Your task to perform on an android device: When is my next appointment? Image 0: 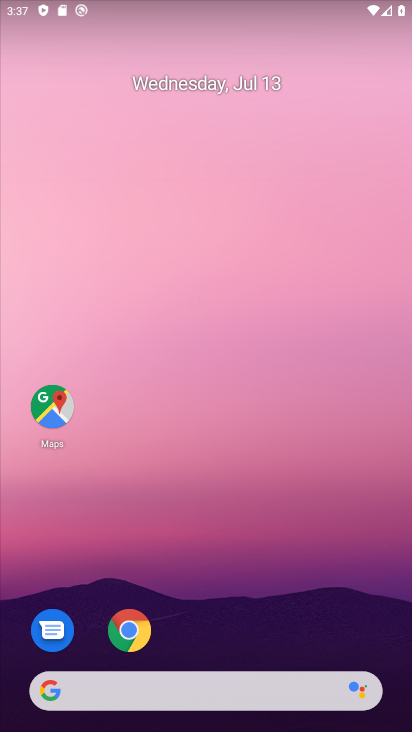
Step 0: drag from (372, 606) to (331, 12)
Your task to perform on an android device: When is my next appointment? Image 1: 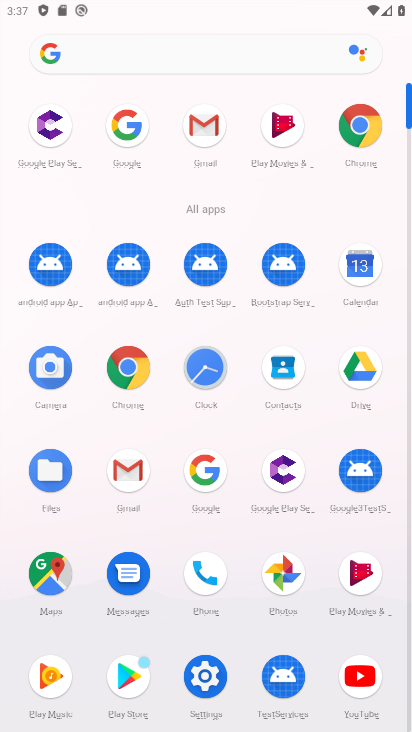
Step 1: click (362, 278)
Your task to perform on an android device: When is my next appointment? Image 2: 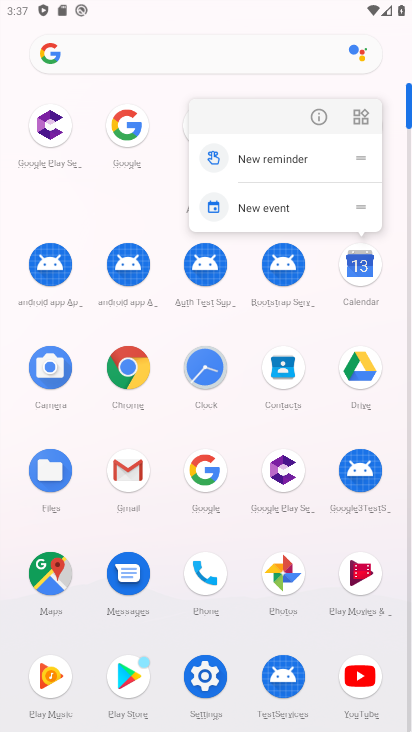
Step 2: click (362, 275)
Your task to perform on an android device: When is my next appointment? Image 3: 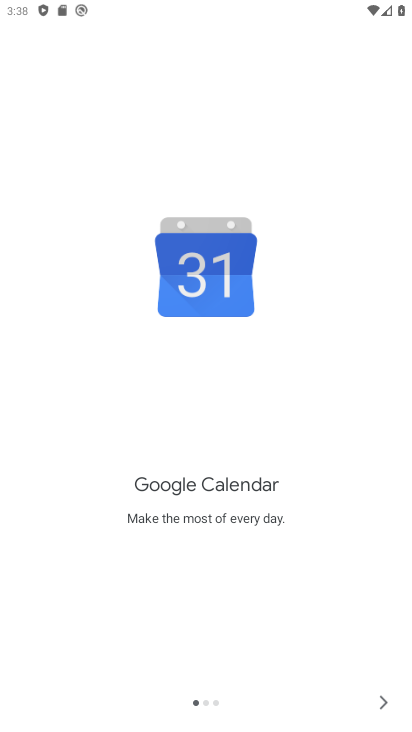
Step 3: click (385, 705)
Your task to perform on an android device: When is my next appointment? Image 4: 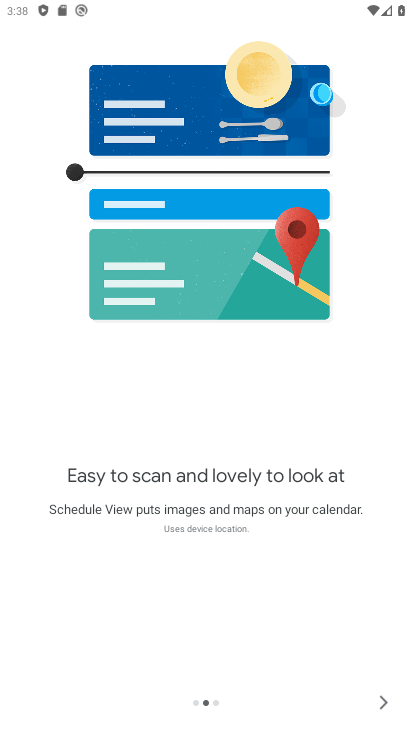
Step 4: click (384, 704)
Your task to perform on an android device: When is my next appointment? Image 5: 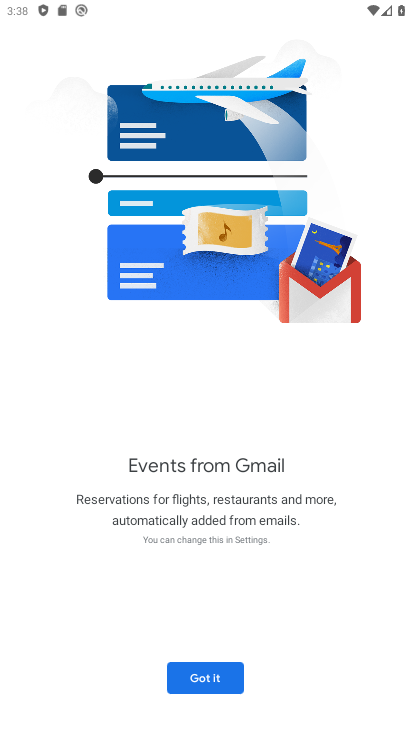
Step 5: click (209, 662)
Your task to perform on an android device: When is my next appointment? Image 6: 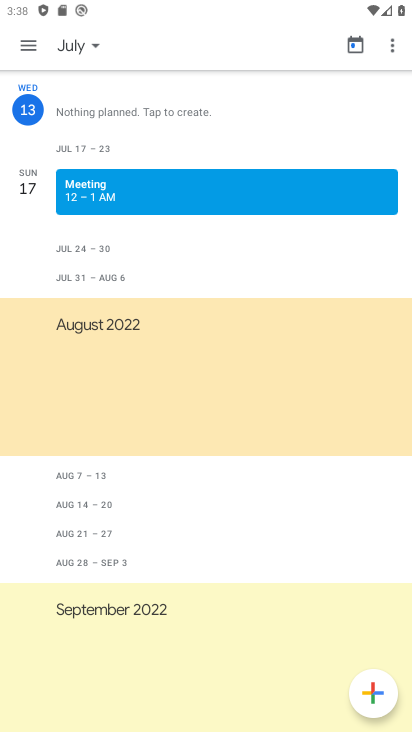
Step 6: click (84, 36)
Your task to perform on an android device: When is my next appointment? Image 7: 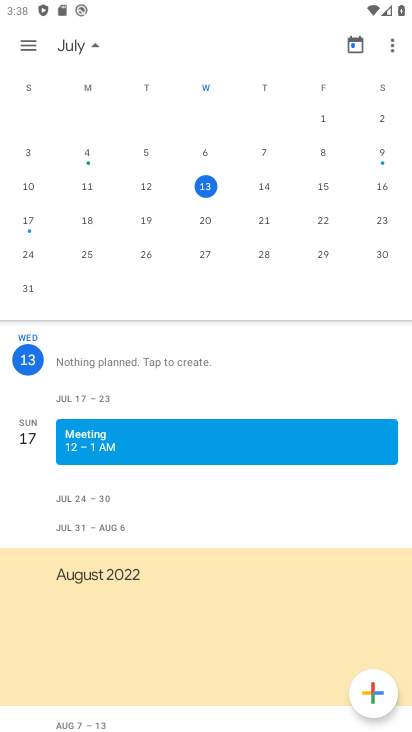
Step 7: task complete